Your task to perform on an android device: Go to Reddit.com Image 0: 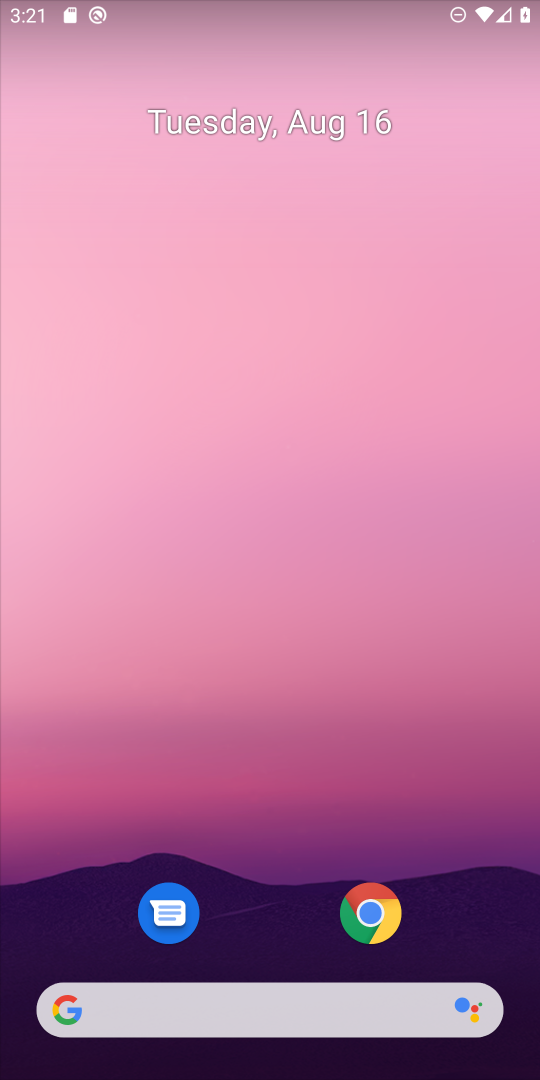
Step 0: click (372, 909)
Your task to perform on an android device: Go to Reddit.com Image 1: 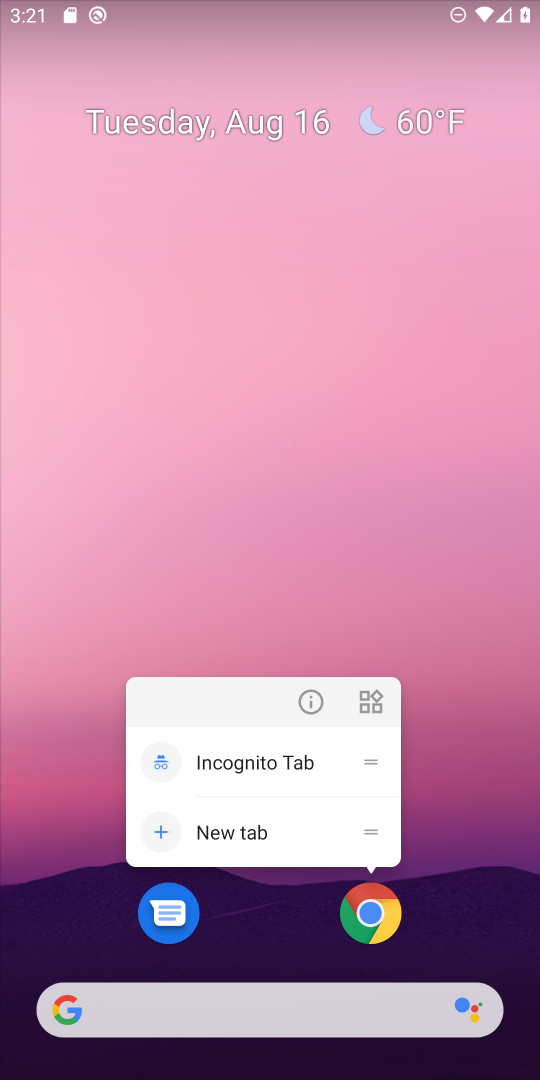
Step 1: click (368, 911)
Your task to perform on an android device: Go to Reddit.com Image 2: 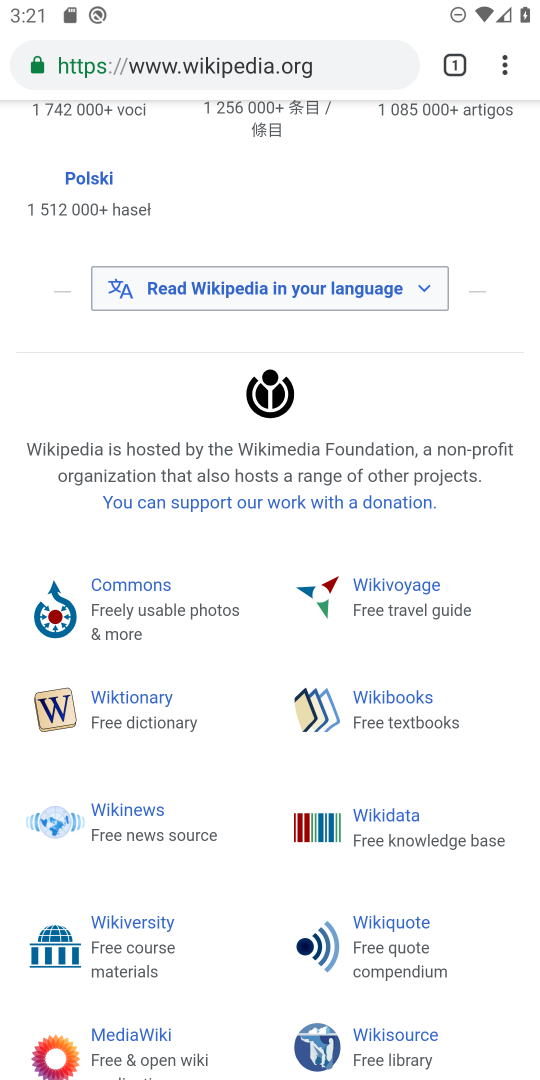
Step 2: click (350, 63)
Your task to perform on an android device: Go to Reddit.com Image 3: 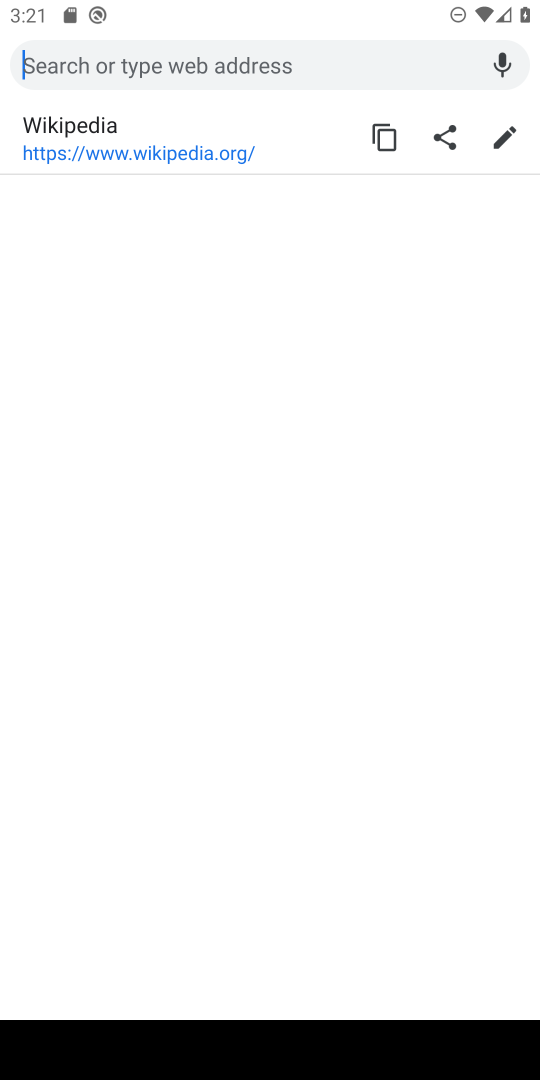
Step 3: type "reddit.com"
Your task to perform on an android device: Go to Reddit.com Image 4: 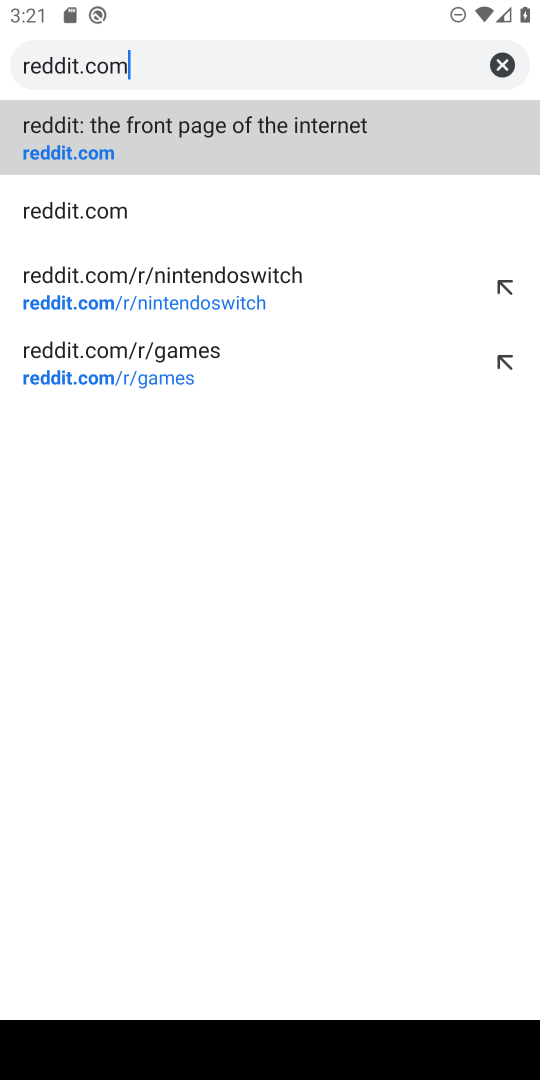
Step 4: click (80, 135)
Your task to perform on an android device: Go to Reddit.com Image 5: 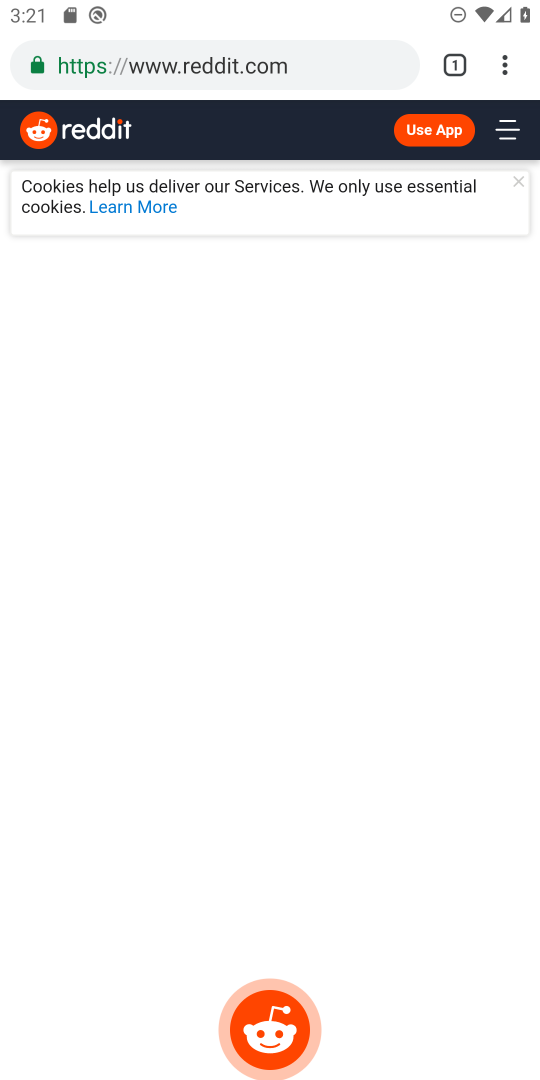
Step 5: task complete